Your task to perform on an android device: see sites visited before in the chrome app Image 0: 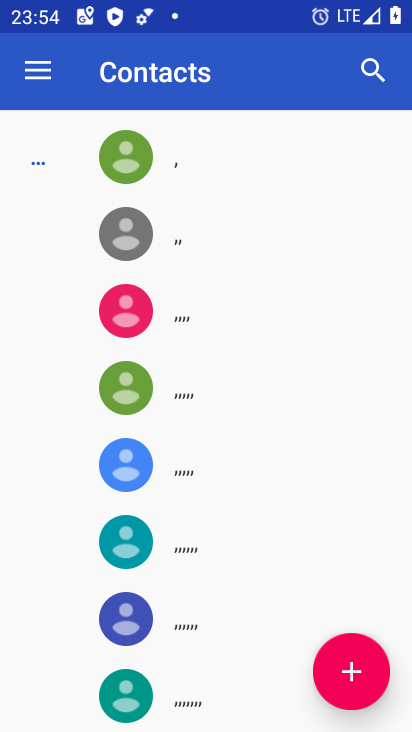
Step 0: press home button
Your task to perform on an android device: see sites visited before in the chrome app Image 1: 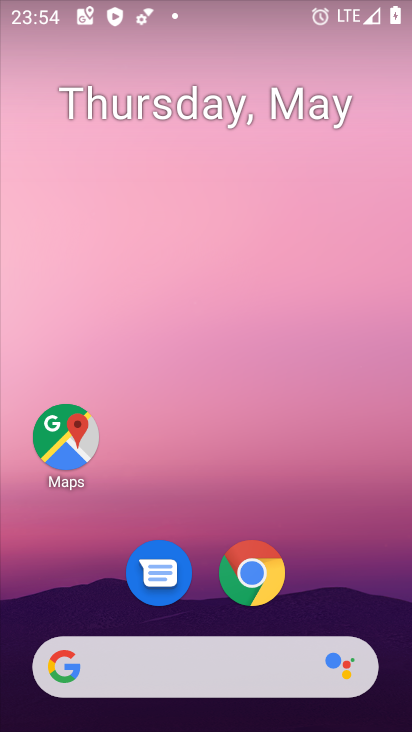
Step 1: click (250, 589)
Your task to perform on an android device: see sites visited before in the chrome app Image 2: 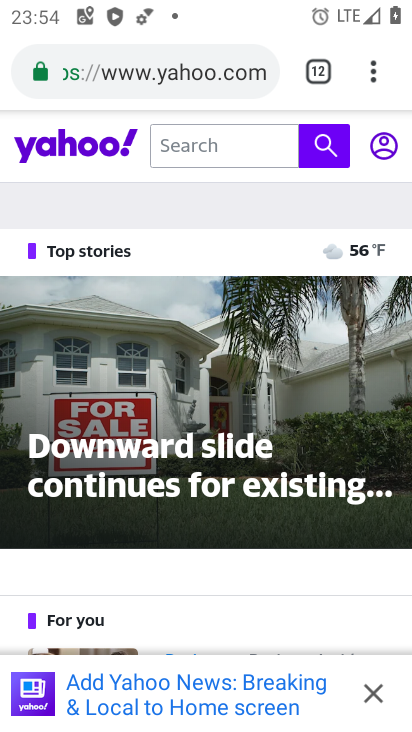
Step 2: click (375, 79)
Your task to perform on an android device: see sites visited before in the chrome app Image 3: 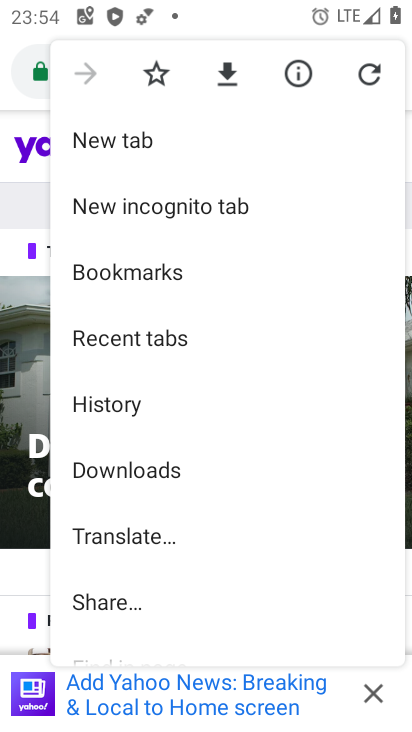
Step 3: click (164, 330)
Your task to perform on an android device: see sites visited before in the chrome app Image 4: 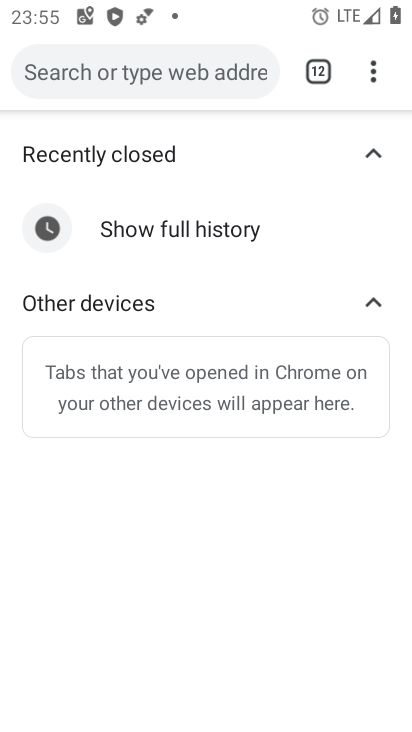
Step 4: task complete